Your task to perform on an android device: turn off sleep mode Image 0: 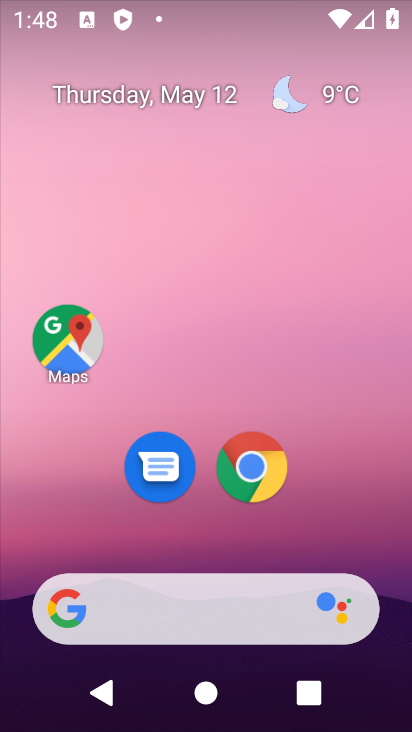
Step 0: drag from (336, 530) to (333, 255)
Your task to perform on an android device: turn off sleep mode Image 1: 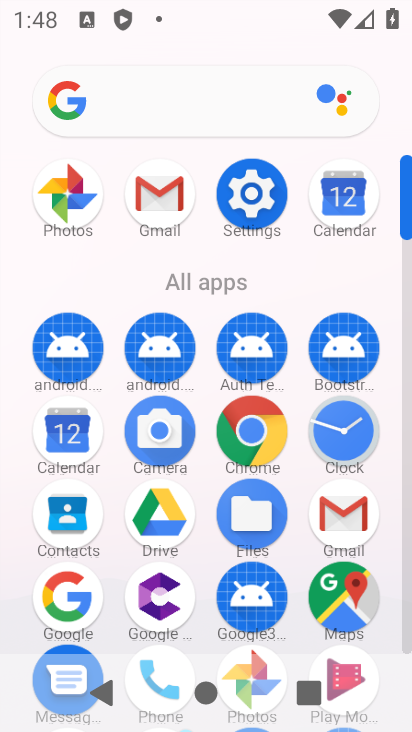
Step 1: click (251, 184)
Your task to perform on an android device: turn off sleep mode Image 2: 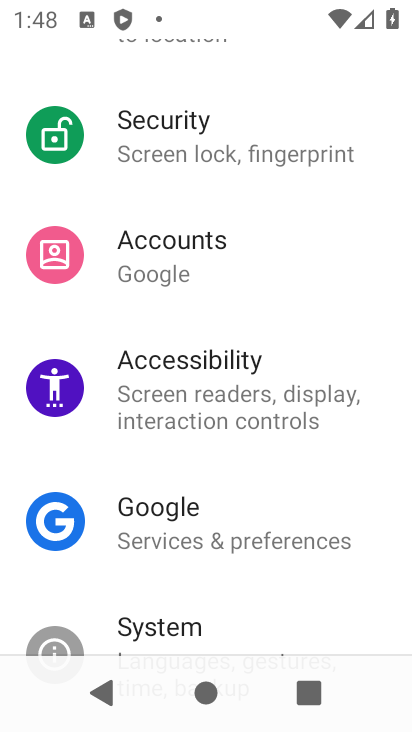
Step 2: task complete